Your task to perform on an android device: Go to Reddit.com Image 0: 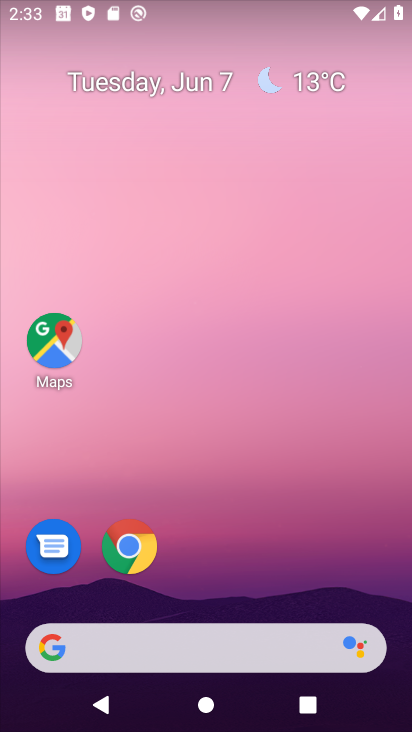
Step 0: click (140, 643)
Your task to perform on an android device: Go to Reddit.com Image 1: 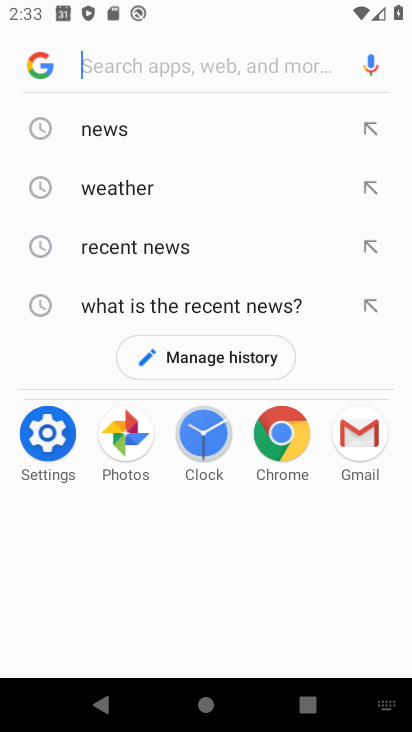
Step 1: type "reddit"
Your task to perform on an android device: Go to Reddit.com Image 2: 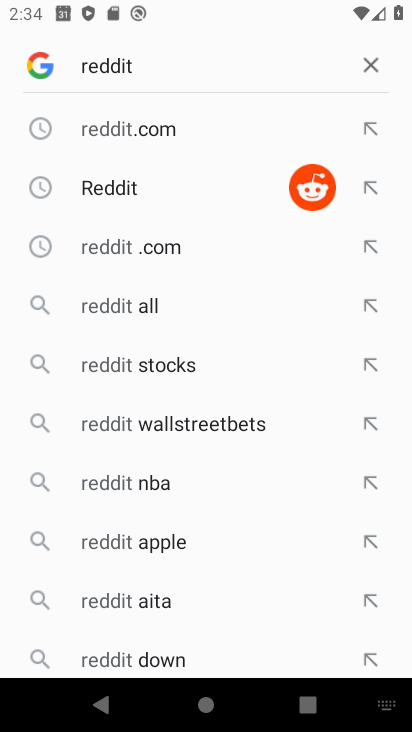
Step 2: click (109, 186)
Your task to perform on an android device: Go to Reddit.com Image 3: 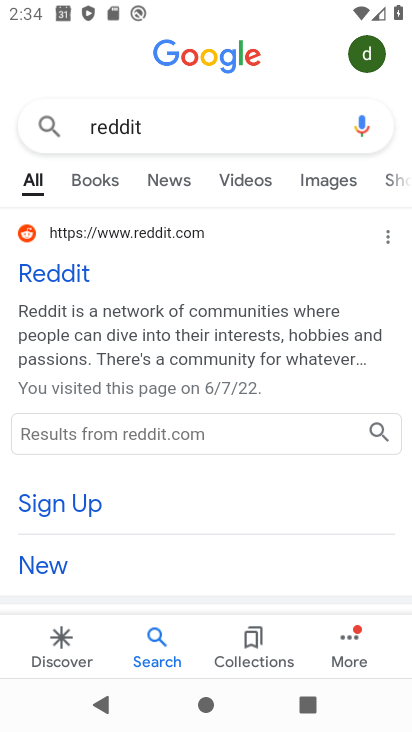
Step 3: task complete